Your task to perform on an android device: Open maps Image 0: 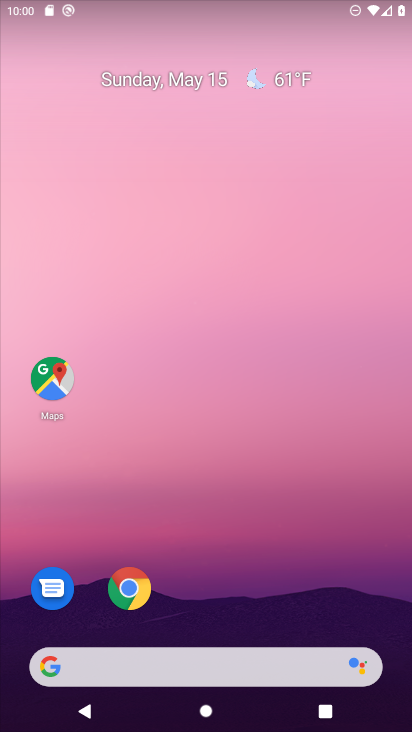
Step 0: click (51, 362)
Your task to perform on an android device: Open maps Image 1: 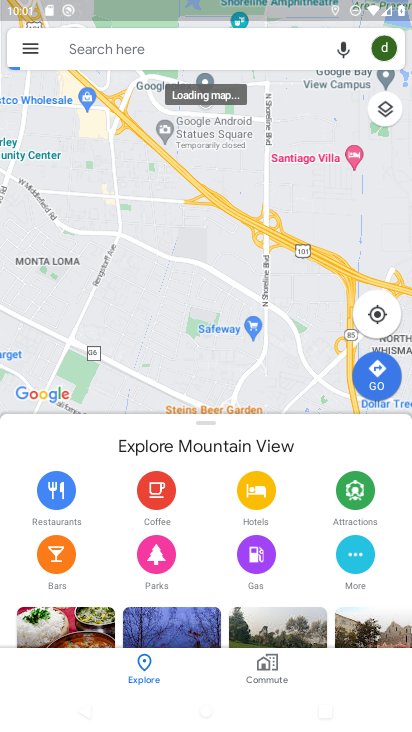
Step 1: task complete